Your task to perform on an android device: Open privacy settings Image 0: 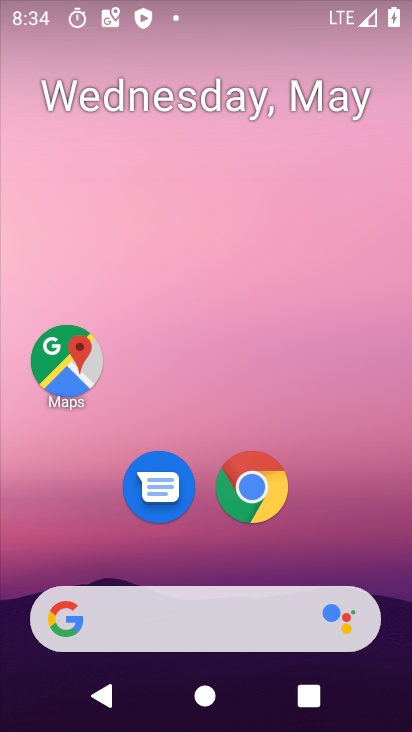
Step 0: drag from (197, 547) to (199, 178)
Your task to perform on an android device: Open privacy settings Image 1: 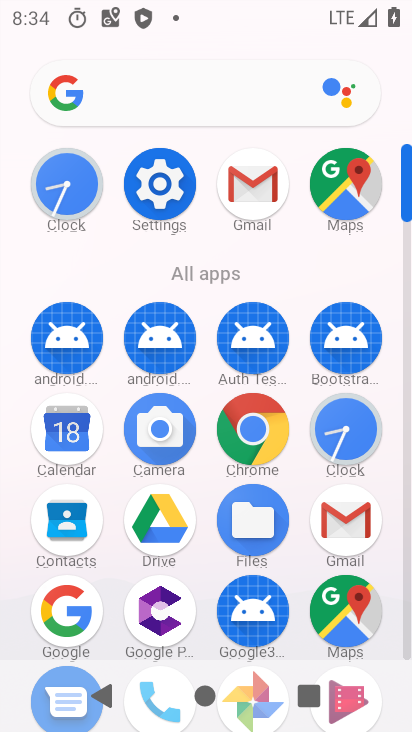
Step 1: click (174, 188)
Your task to perform on an android device: Open privacy settings Image 2: 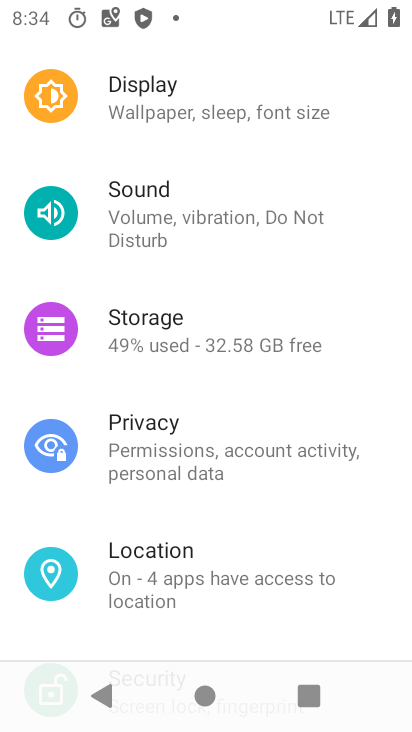
Step 2: drag from (192, 271) to (239, 203)
Your task to perform on an android device: Open privacy settings Image 3: 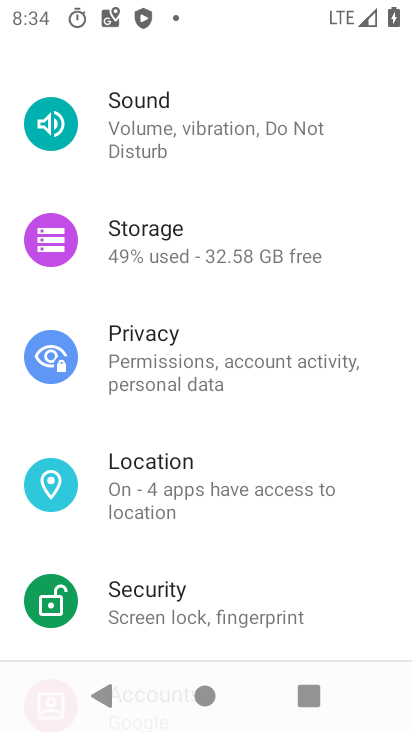
Step 3: drag from (181, 505) to (215, 261)
Your task to perform on an android device: Open privacy settings Image 4: 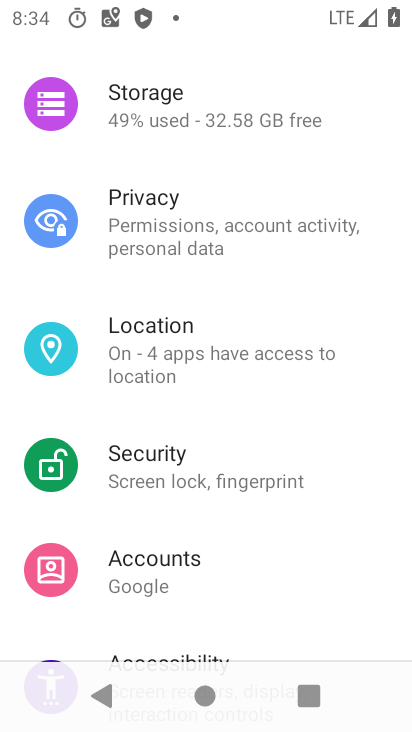
Step 4: click (163, 218)
Your task to perform on an android device: Open privacy settings Image 5: 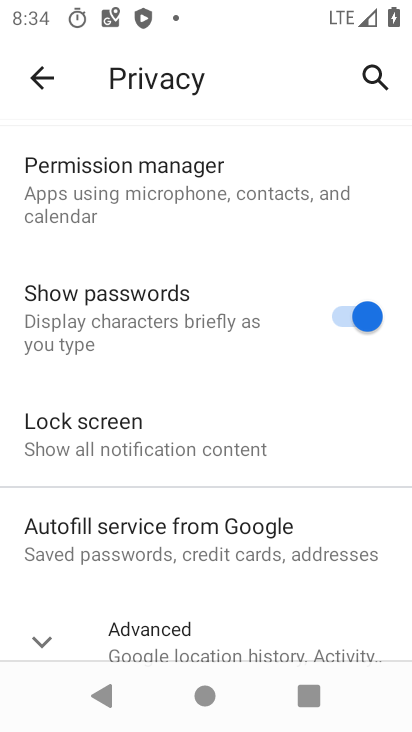
Step 5: task complete